Your task to perform on an android device: change the upload size in google photos Image 0: 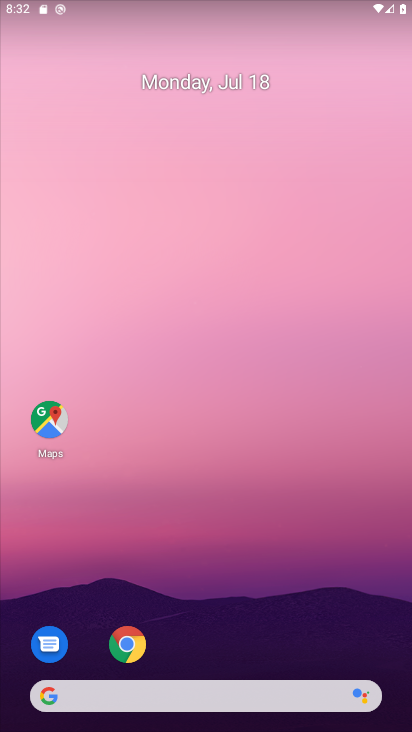
Step 0: drag from (247, 627) to (256, 177)
Your task to perform on an android device: change the upload size in google photos Image 1: 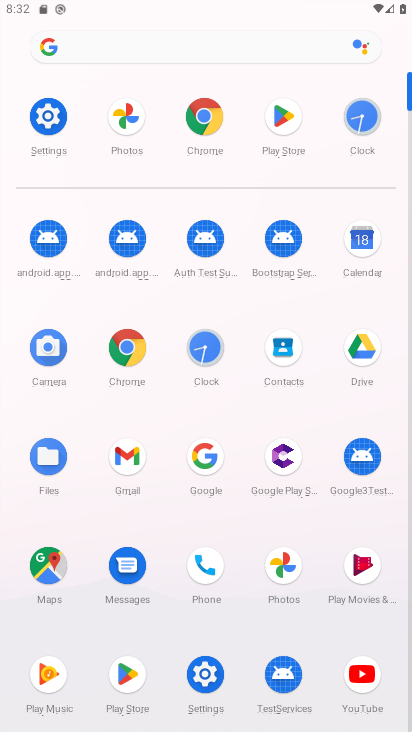
Step 1: click (136, 121)
Your task to perform on an android device: change the upload size in google photos Image 2: 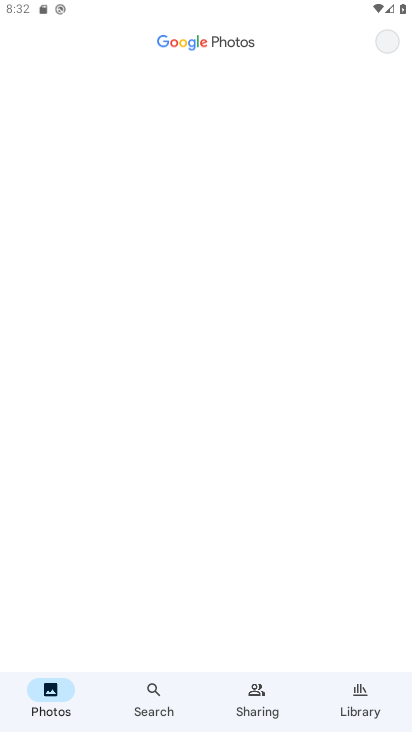
Step 2: task complete